Your task to perform on an android device: toggle show notifications on the lock screen Image 0: 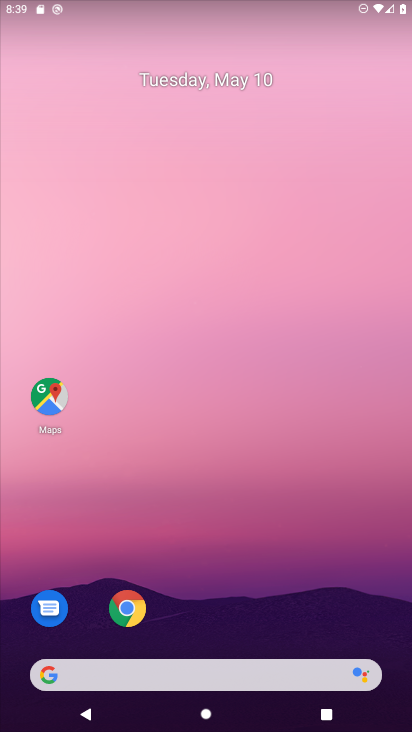
Step 0: drag from (323, 608) to (260, 51)
Your task to perform on an android device: toggle show notifications on the lock screen Image 1: 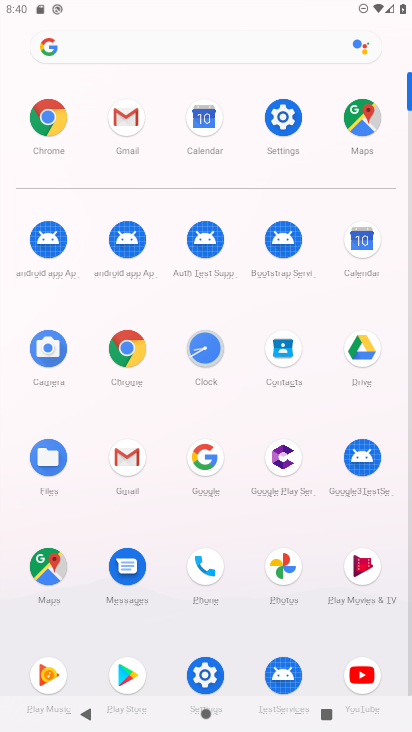
Step 1: click (206, 681)
Your task to perform on an android device: toggle show notifications on the lock screen Image 2: 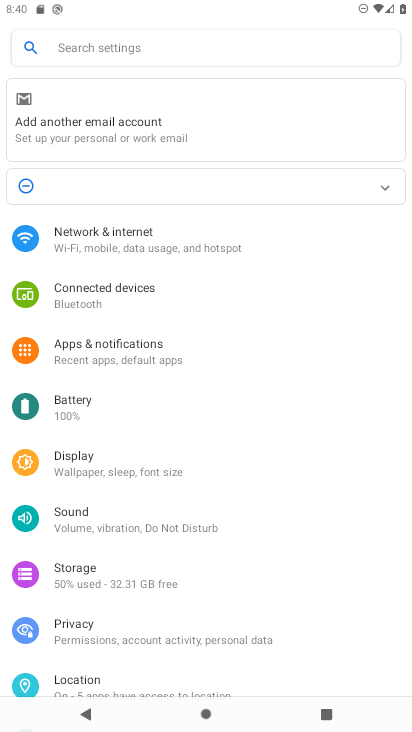
Step 2: click (92, 362)
Your task to perform on an android device: toggle show notifications on the lock screen Image 3: 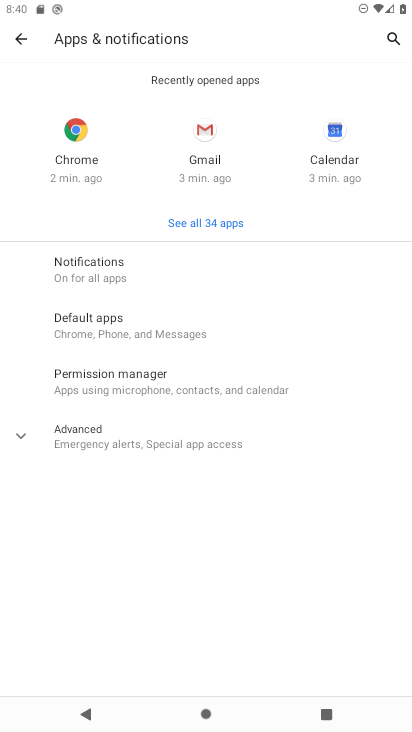
Step 3: click (33, 426)
Your task to perform on an android device: toggle show notifications on the lock screen Image 4: 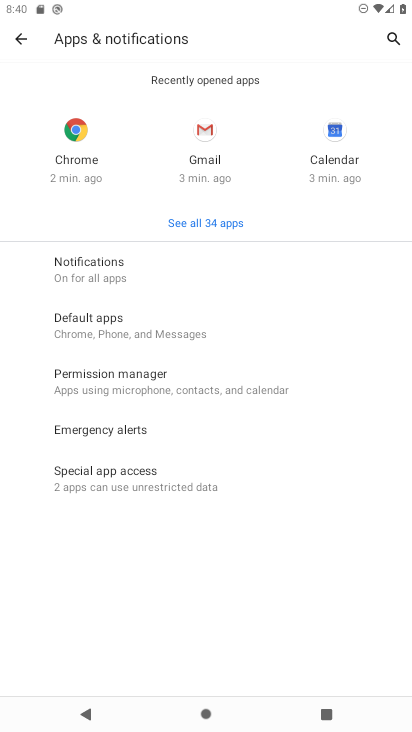
Step 4: click (153, 271)
Your task to perform on an android device: toggle show notifications on the lock screen Image 5: 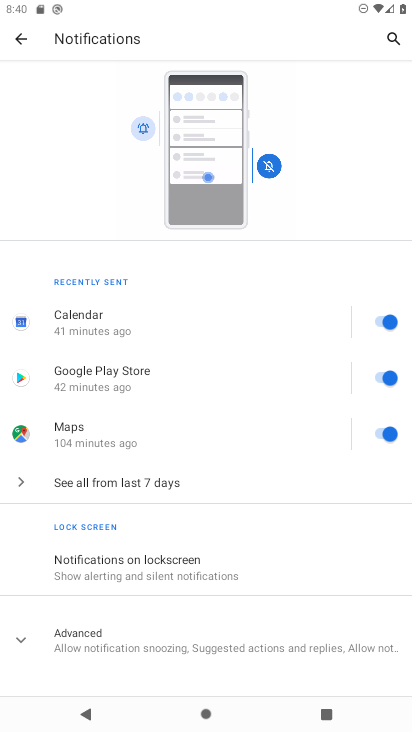
Step 5: click (226, 575)
Your task to perform on an android device: toggle show notifications on the lock screen Image 6: 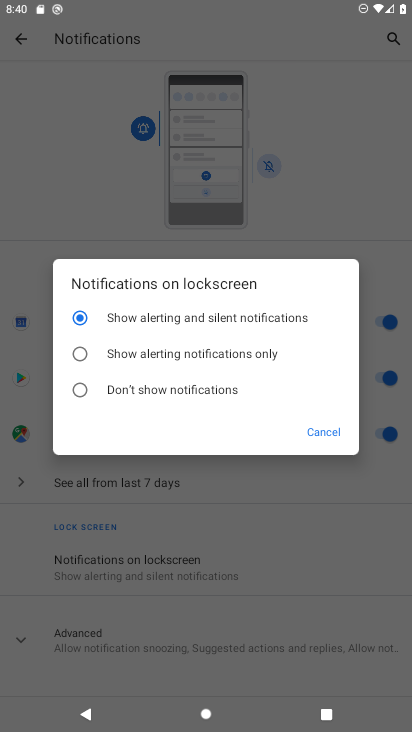
Step 6: click (132, 388)
Your task to perform on an android device: toggle show notifications on the lock screen Image 7: 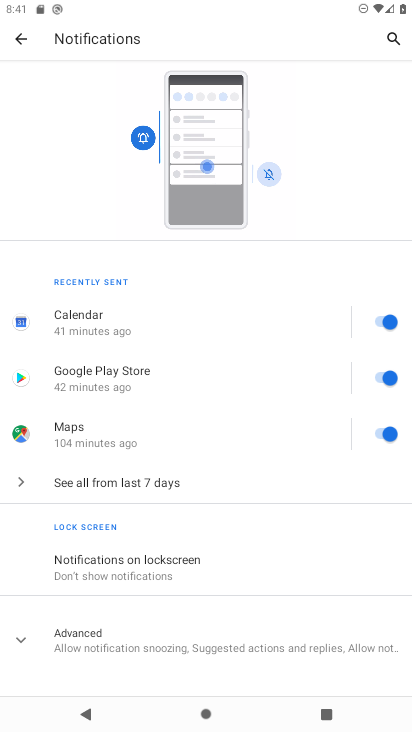
Step 7: task complete